Your task to perform on an android device: snooze an email in the gmail app Image 0: 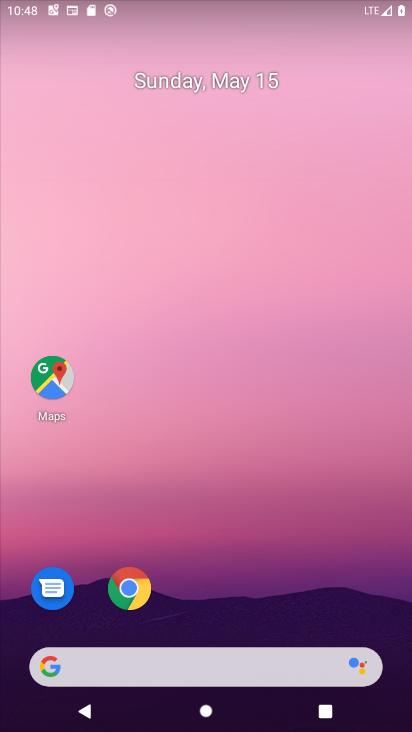
Step 0: drag from (218, 578) to (226, 171)
Your task to perform on an android device: snooze an email in the gmail app Image 1: 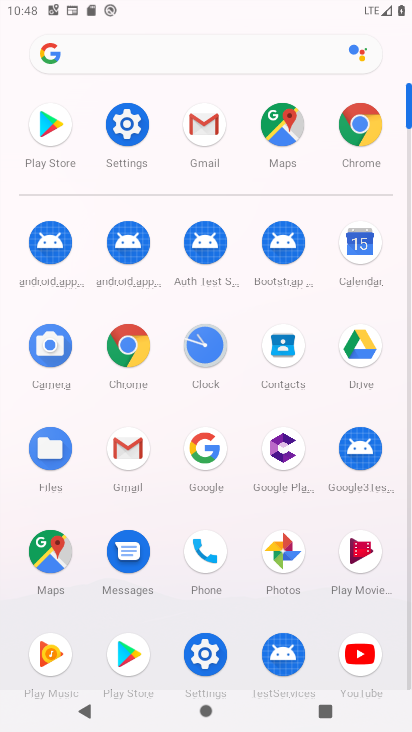
Step 1: click (208, 117)
Your task to perform on an android device: snooze an email in the gmail app Image 2: 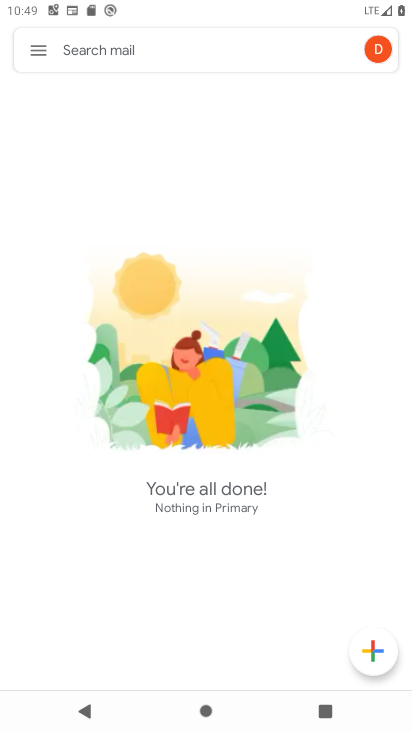
Step 2: click (40, 46)
Your task to perform on an android device: snooze an email in the gmail app Image 3: 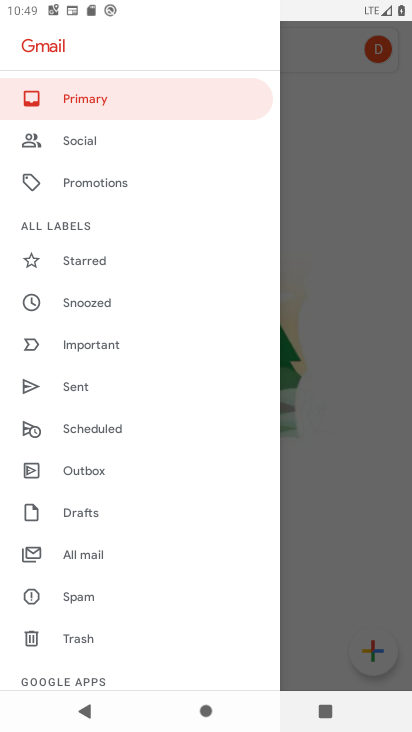
Step 3: click (100, 557)
Your task to perform on an android device: snooze an email in the gmail app Image 4: 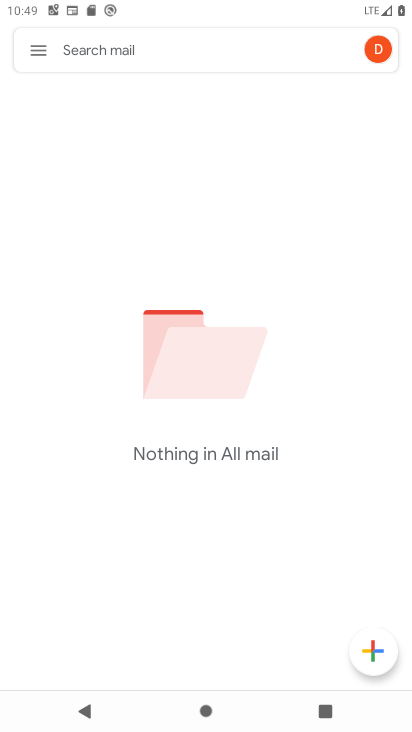
Step 4: task complete